Your task to perform on an android device: see tabs open on other devices in the chrome app Image 0: 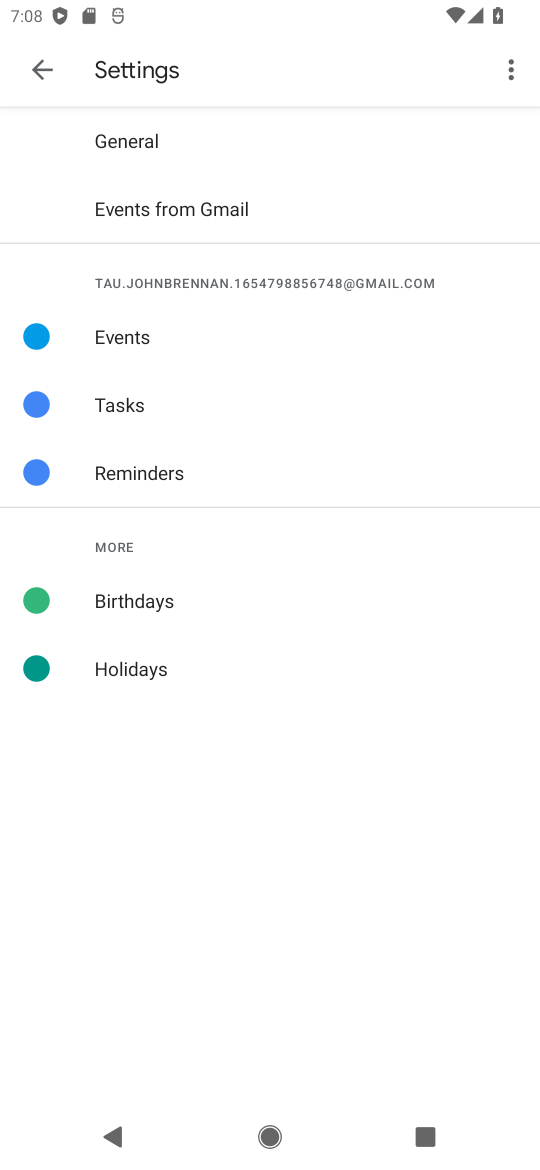
Step 0: press home button
Your task to perform on an android device: see tabs open on other devices in the chrome app Image 1: 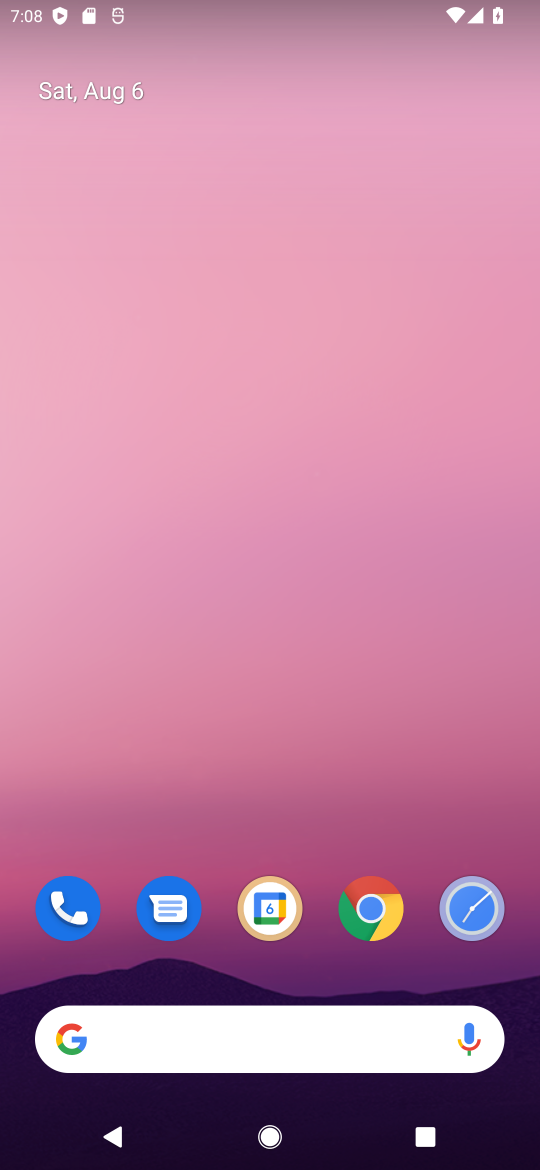
Step 1: click (383, 927)
Your task to perform on an android device: see tabs open on other devices in the chrome app Image 2: 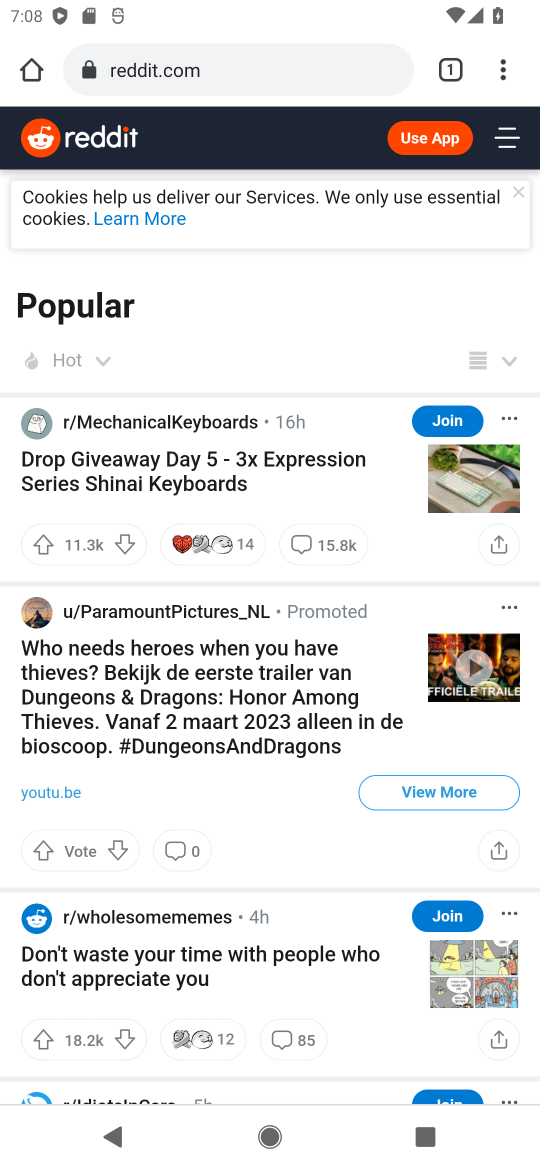
Step 2: click (501, 62)
Your task to perform on an android device: see tabs open on other devices in the chrome app Image 3: 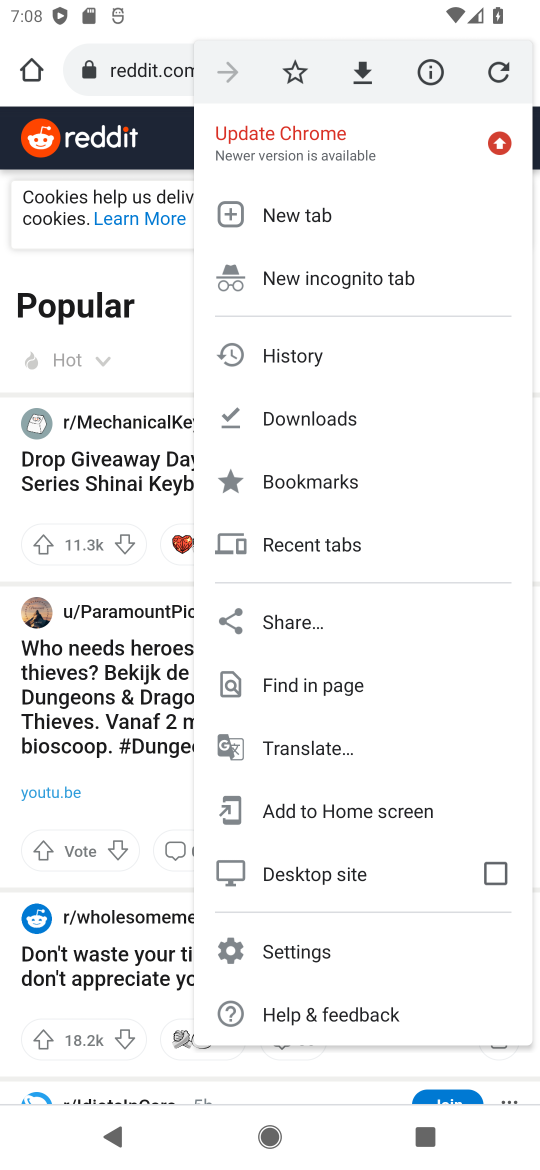
Step 3: click (330, 527)
Your task to perform on an android device: see tabs open on other devices in the chrome app Image 4: 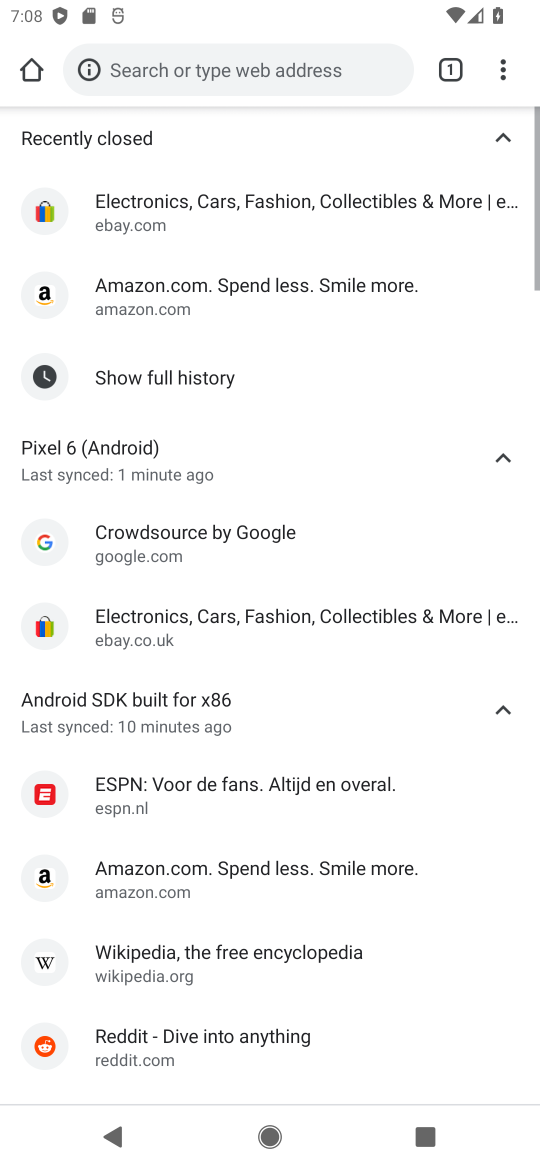
Step 4: task complete